Your task to perform on an android device: What's the weather going to be this weekend? Image 0: 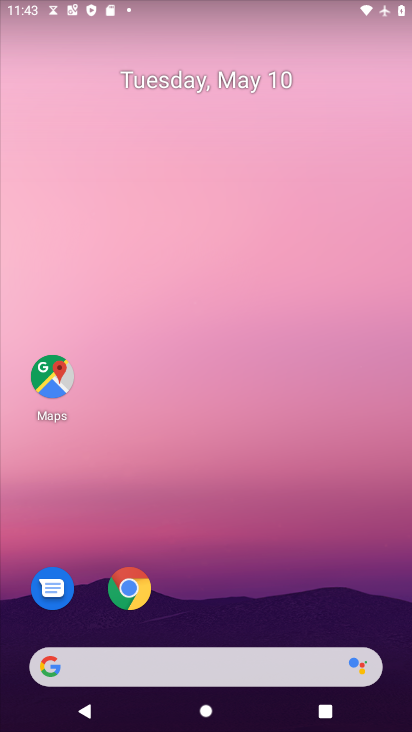
Step 0: drag from (327, 638) to (236, 320)
Your task to perform on an android device: What's the weather going to be this weekend? Image 1: 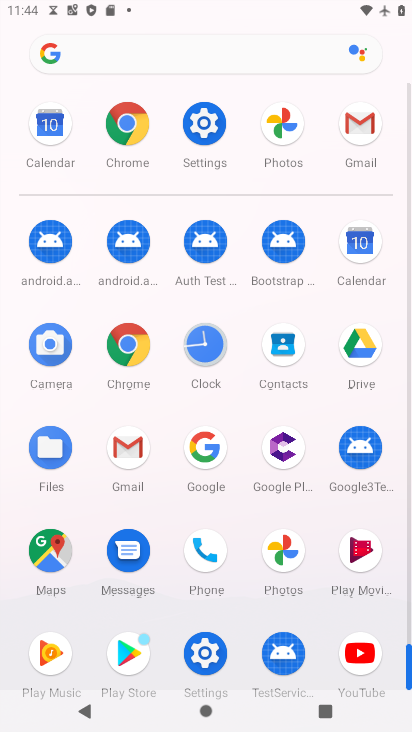
Step 1: press back button
Your task to perform on an android device: What's the weather going to be this weekend? Image 2: 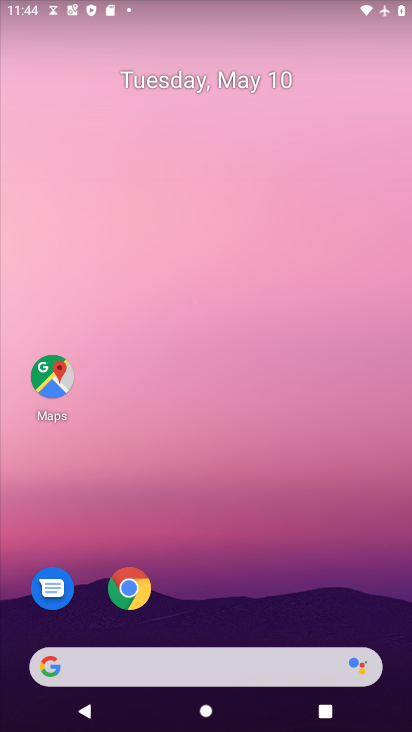
Step 2: drag from (21, 266) to (402, 483)
Your task to perform on an android device: What's the weather going to be this weekend? Image 3: 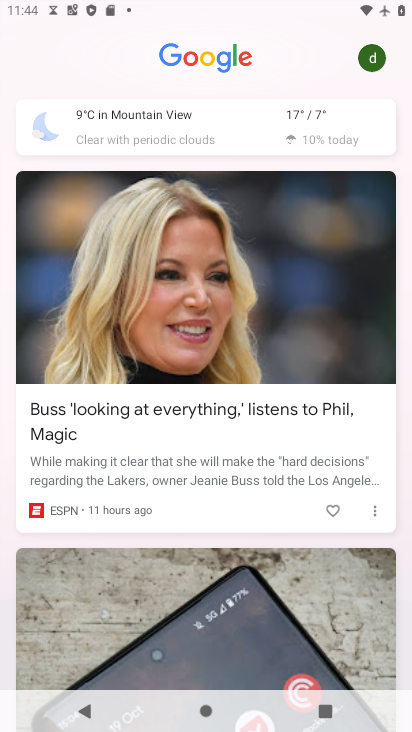
Step 3: click (198, 137)
Your task to perform on an android device: What's the weather going to be this weekend? Image 4: 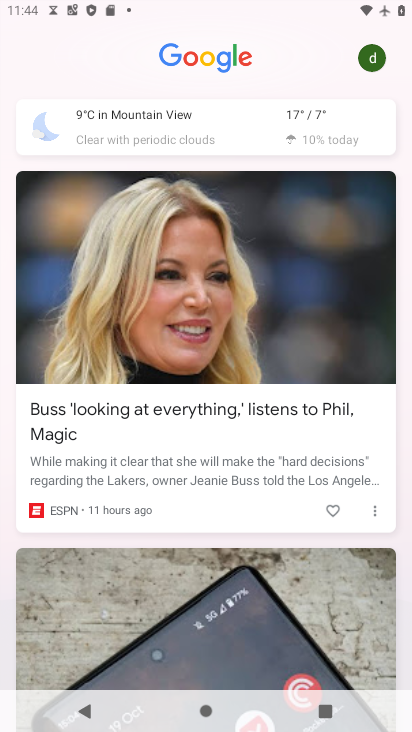
Step 4: click (198, 137)
Your task to perform on an android device: What's the weather going to be this weekend? Image 5: 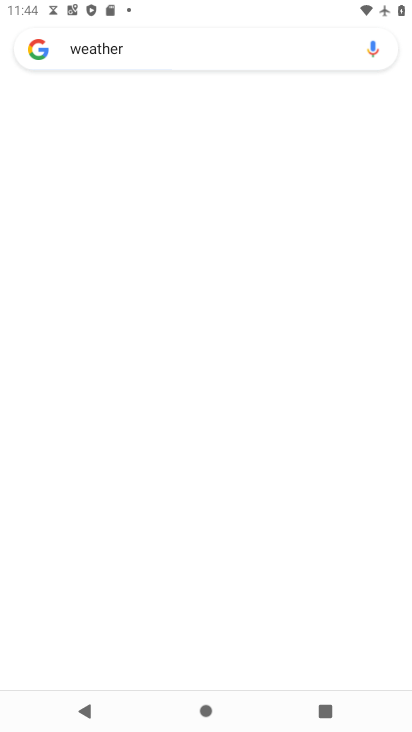
Step 5: click (195, 137)
Your task to perform on an android device: What's the weather going to be this weekend? Image 6: 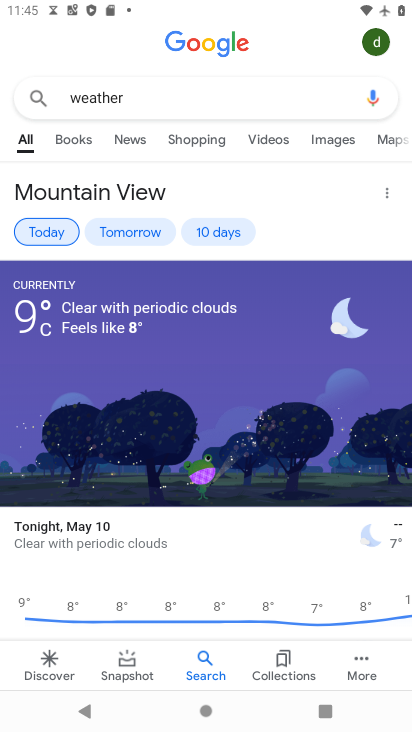
Step 6: click (222, 230)
Your task to perform on an android device: What's the weather going to be this weekend? Image 7: 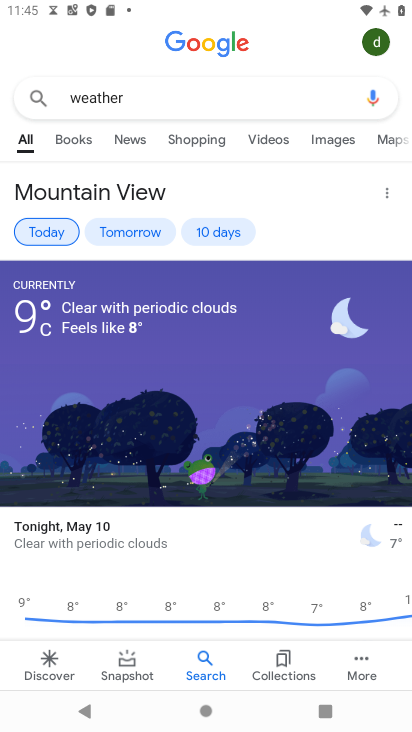
Step 7: click (222, 231)
Your task to perform on an android device: What's the weather going to be this weekend? Image 8: 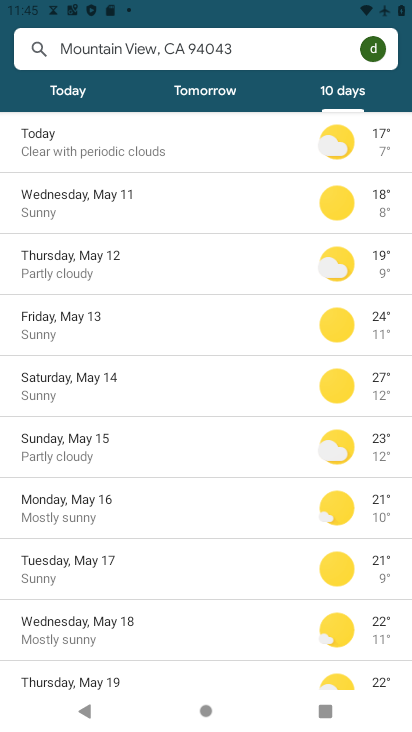
Step 8: task complete